Your task to perform on an android device: turn off data saver in the chrome app Image 0: 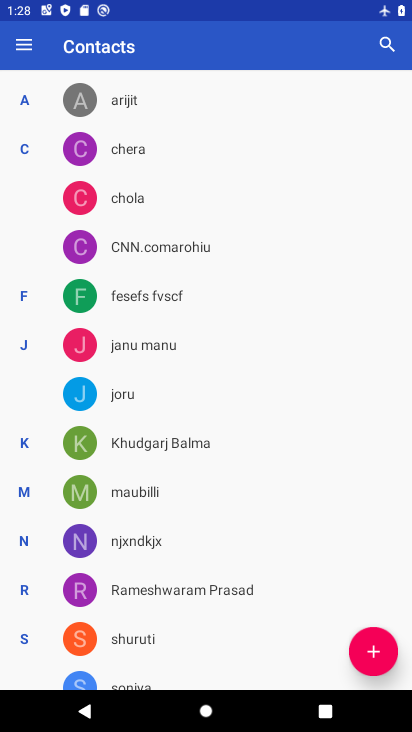
Step 0: press home button
Your task to perform on an android device: turn off data saver in the chrome app Image 1: 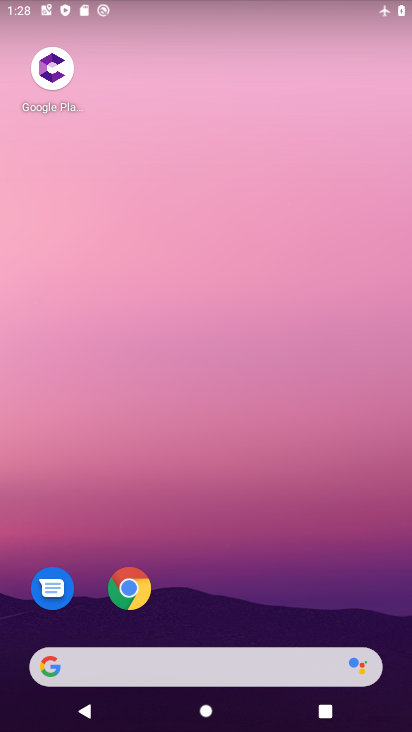
Step 1: click (131, 581)
Your task to perform on an android device: turn off data saver in the chrome app Image 2: 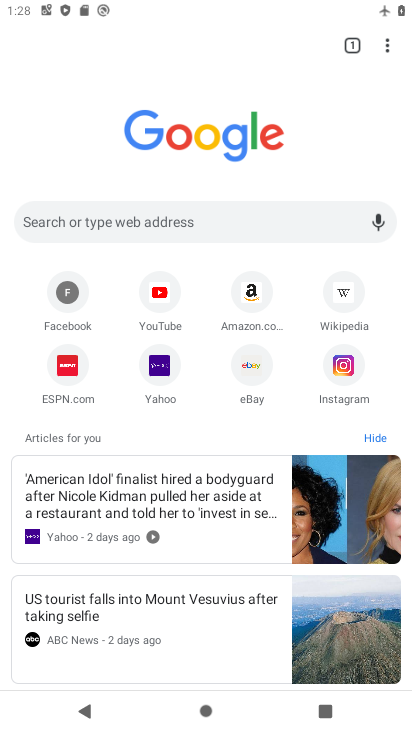
Step 2: click (383, 49)
Your task to perform on an android device: turn off data saver in the chrome app Image 3: 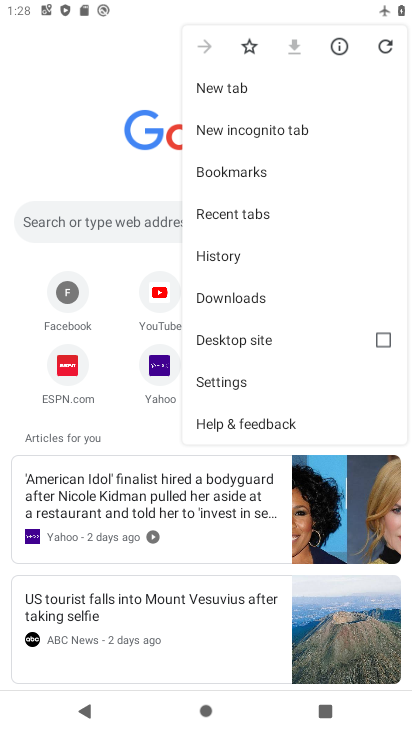
Step 3: click (235, 374)
Your task to perform on an android device: turn off data saver in the chrome app Image 4: 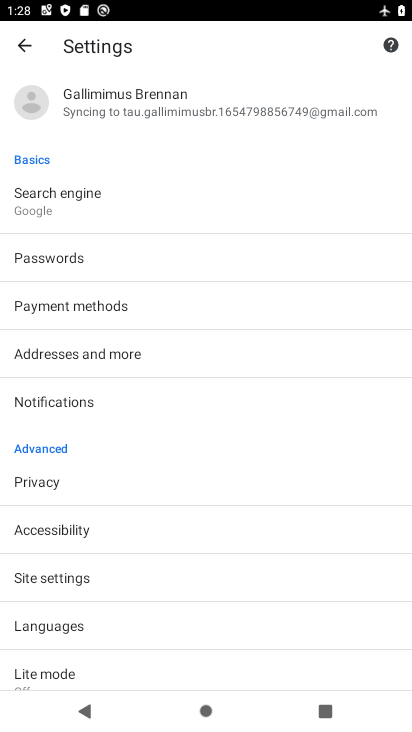
Step 4: click (80, 663)
Your task to perform on an android device: turn off data saver in the chrome app Image 5: 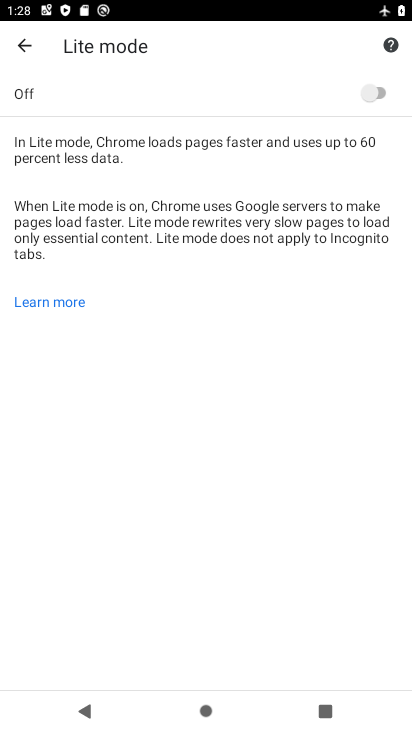
Step 5: task complete